Your task to perform on an android device: turn off priority inbox in the gmail app Image 0: 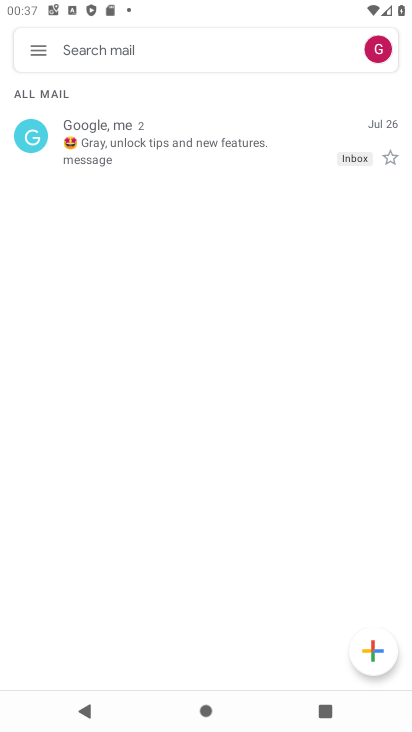
Step 0: click (41, 52)
Your task to perform on an android device: turn off priority inbox in the gmail app Image 1: 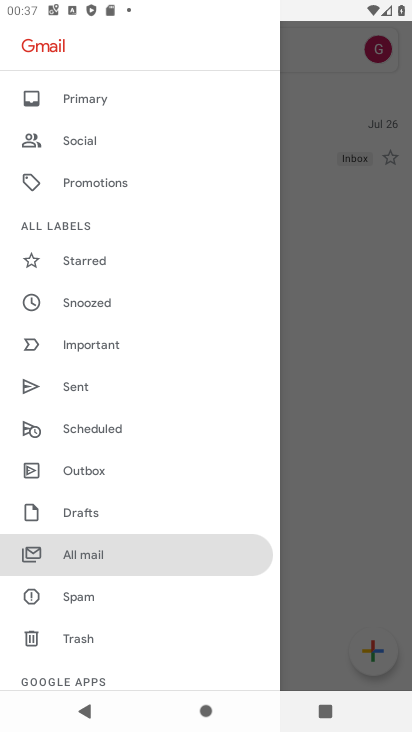
Step 1: drag from (81, 656) to (167, 99)
Your task to perform on an android device: turn off priority inbox in the gmail app Image 2: 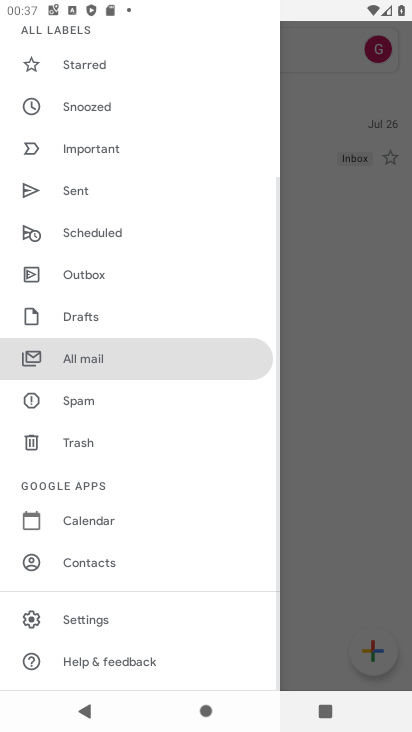
Step 2: drag from (95, 639) to (134, 185)
Your task to perform on an android device: turn off priority inbox in the gmail app Image 3: 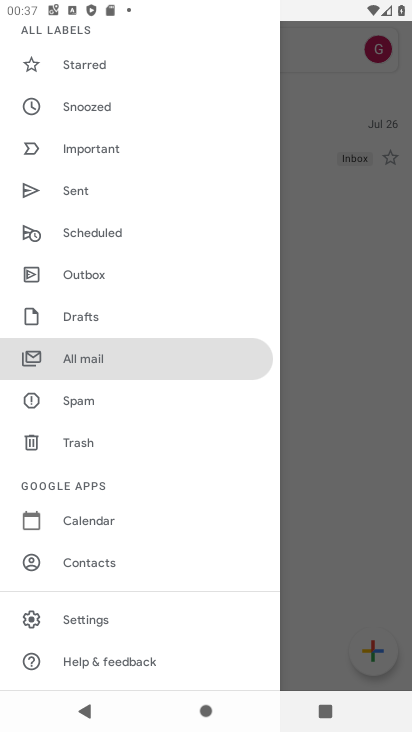
Step 3: click (71, 613)
Your task to perform on an android device: turn off priority inbox in the gmail app Image 4: 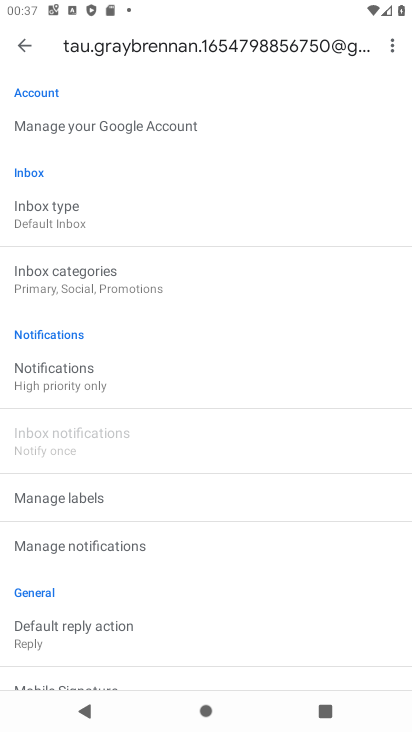
Step 4: click (86, 215)
Your task to perform on an android device: turn off priority inbox in the gmail app Image 5: 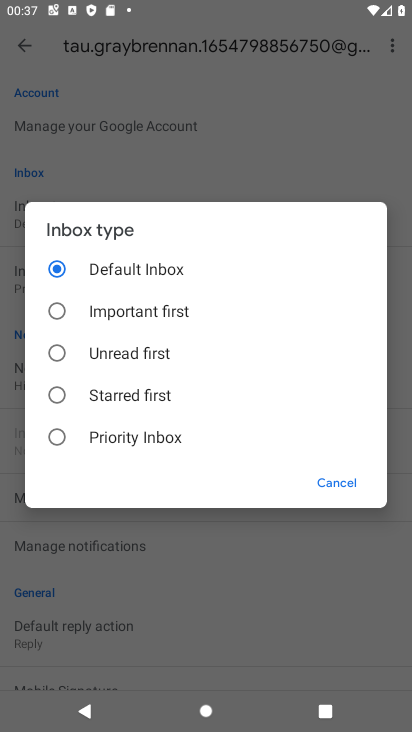
Step 5: task complete